Your task to perform on an android device: What's on my calendar tomorrow? Image 0: 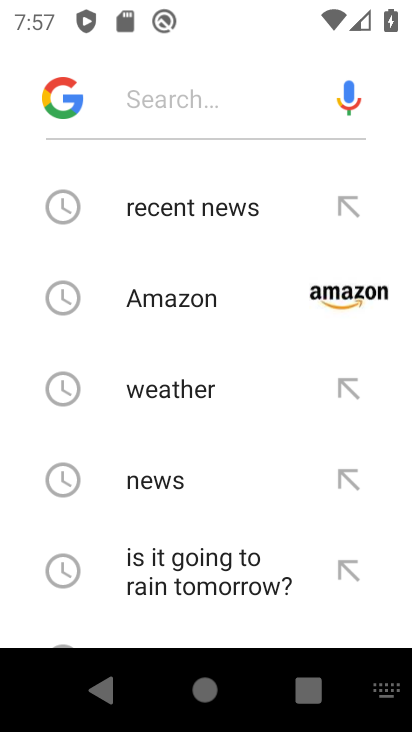
Step 0: press home button
Your task to perform on an android device: What's on my calendar tomorrow? Image 1: 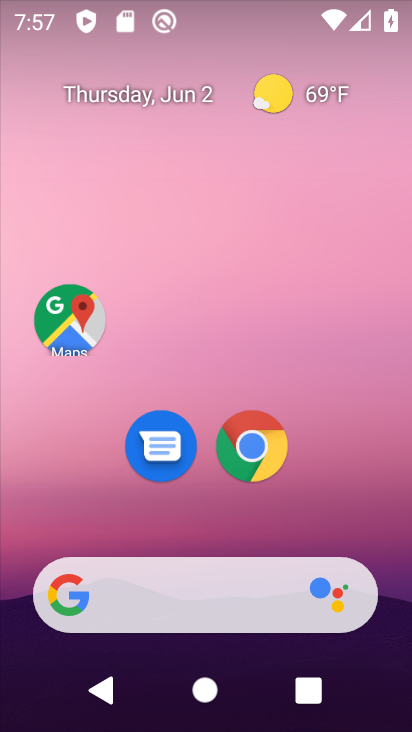
Step 1: drag from (202, 475) to (264, 79)
Your task to perform on an android device: What's on my calendar tomorrow? Image 2: 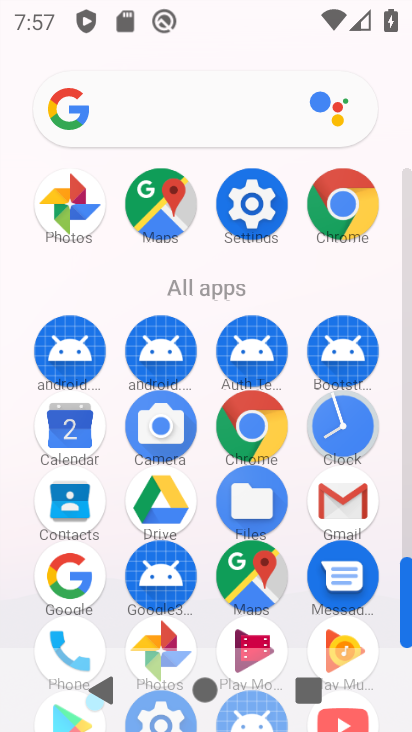
Step 2: click (77, 435)
Your task to perform on an android device: What's on my calendar tomorrow? Image 3: 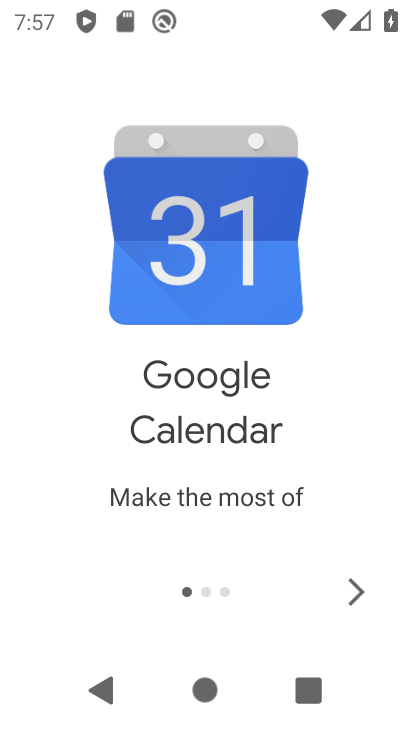
Step 3: click (342, 581)
Your task to perform on an android device: What's on my calendar tomorrow? Image 4: 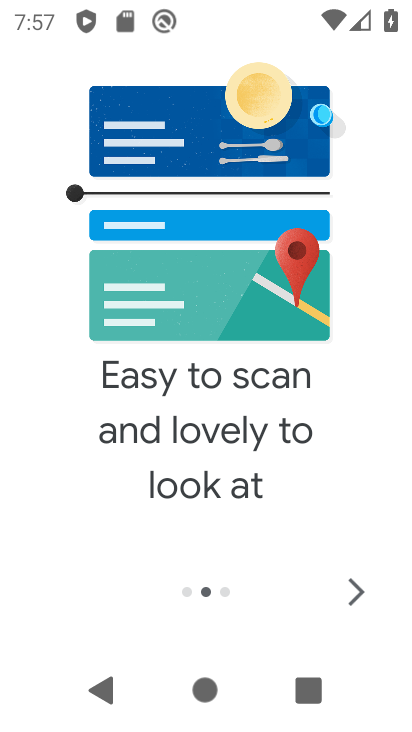
Step 4: click (342, 588)
Your task to perform on an android device: What's on my calendar tomorrow? Image 5: 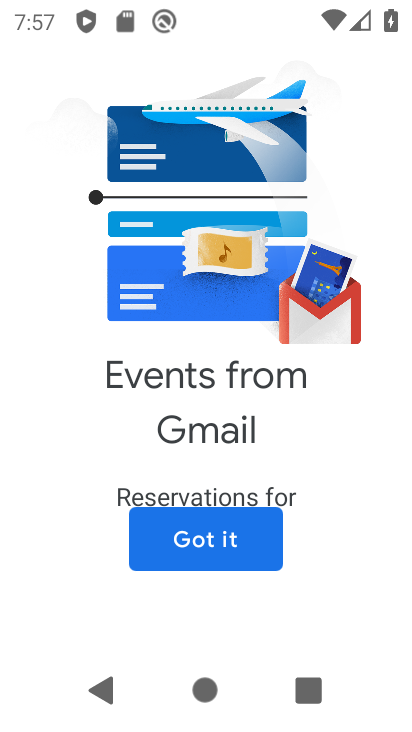
Step 5: click (200, 539)
Your task to perform on an android device: What's on my calendar tomorrow? Image 6: 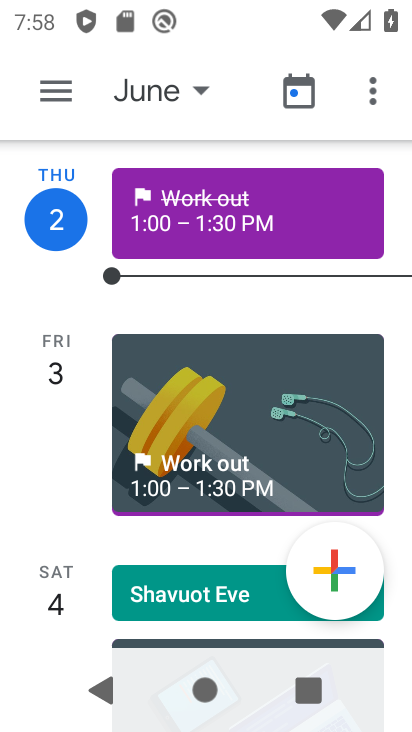
Step 6: drag from (182, 526) to (215, 247)
Your task to perform on an android device: What's on my calendar tomorrow? Image 7: 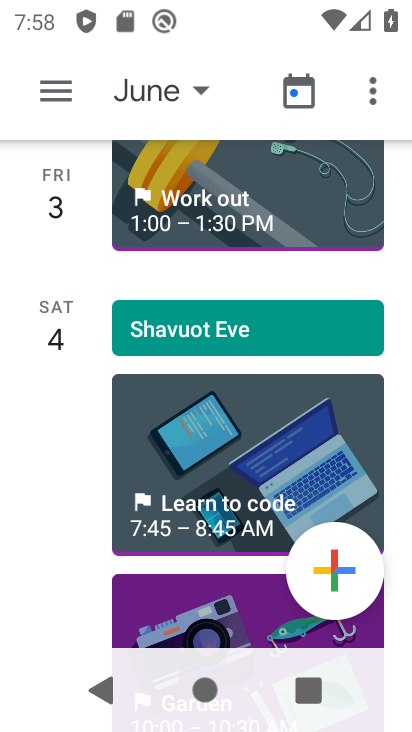
Step 7: click (211, 322)
Your task to perform on an android device: What's on my calendar tomorrow? Image 8: 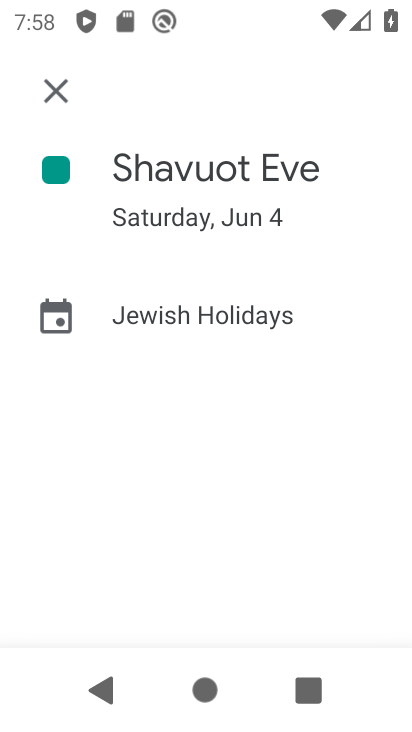
Step 8: task complete